Your task to perform on an android device: Open CNN.com Image 0: 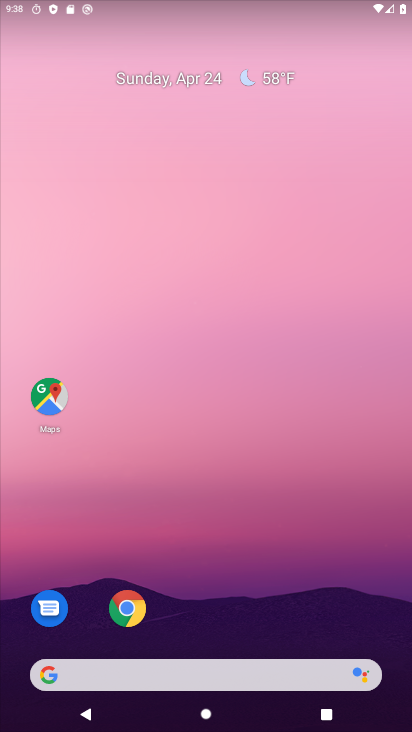
Step 0: drag from (352, 604) to (371, 71)
Your task to perform on an android device: Open CNN.com Image 1: 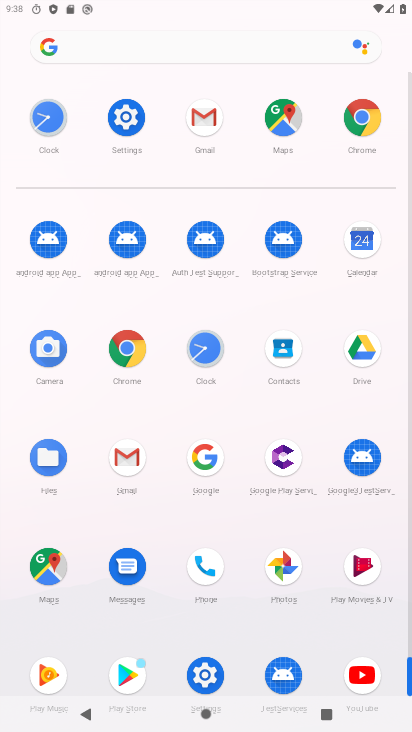
Step 1: click (369, 125)
Your task to perform on an android device: Open CNN.com Image 2: 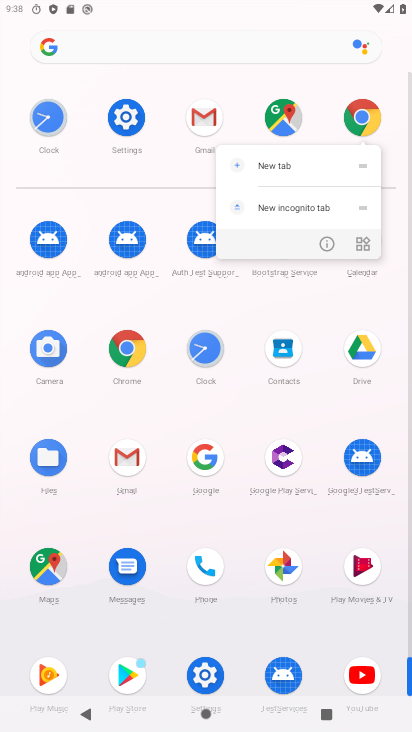
Step 2: click (365, 104)
Your task to perform on an android device: Open CNN.com Image 3: 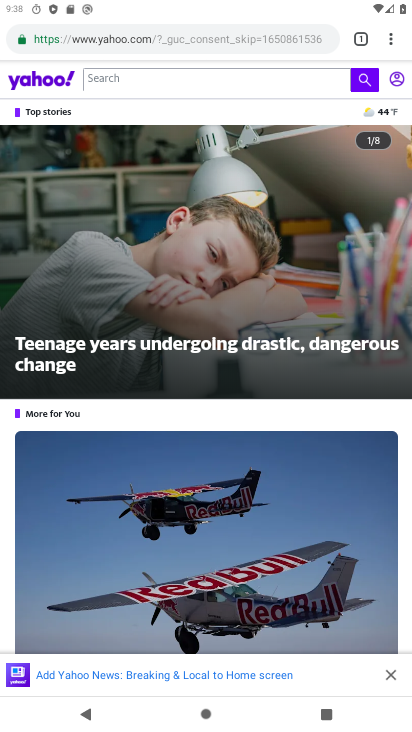
Step 3: click (220, 38)
Your task to perform on an android device: Open CNN.com Image 4: 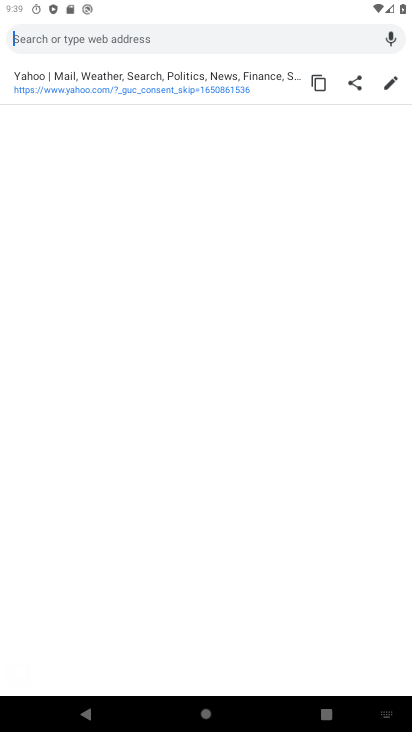
Step 4: type "cnn.com"
Your task to perform on an android device: Open CNN.com Image 5: 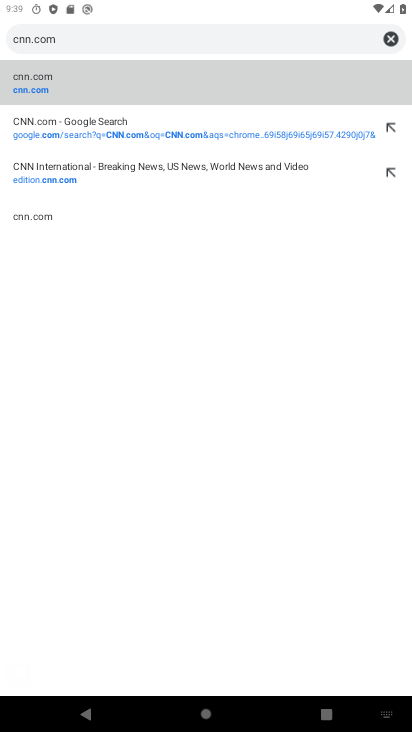
Step 5: click (42, 87)
Your task to perform on an android device: Open CNN.com Image 6: 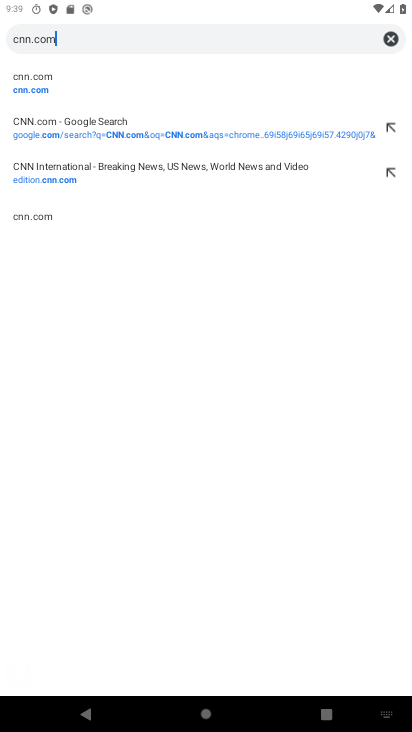
Step 6: click (35, 96)
Your task to perform on an android device: Open CNN.com Image 7: 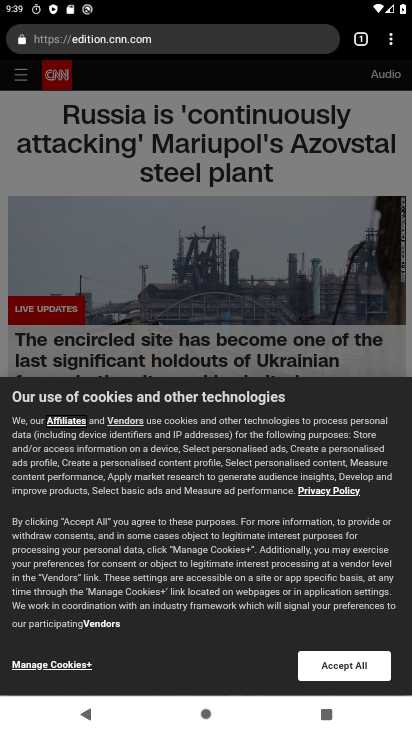
Step 7: task complete